Your task to perform on an android device: Go to display settings Image 0: 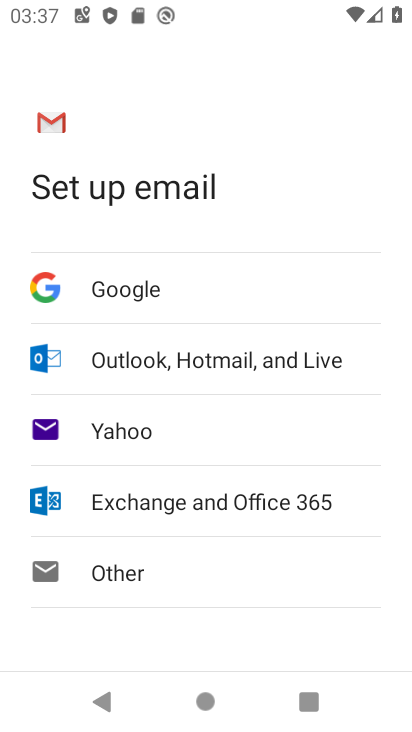
Step 0: press home button
Your task to perform on an android device: Go to display settings Image 1: 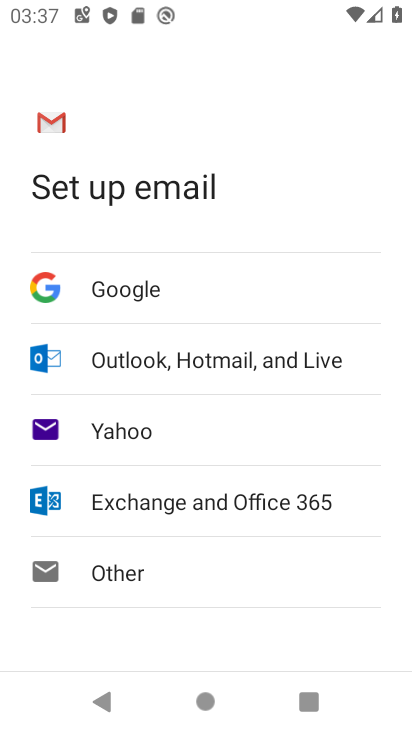
Step 1: press home button
Your task to perform on an android device: Go to display settings Image 2: 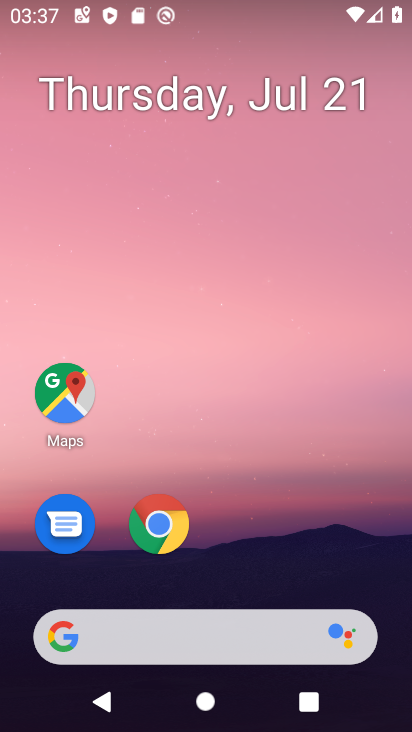
Step 2: drag from (261, 563) to (271, 0)
Your task to perform on an android device: Go to display settings Image 3: 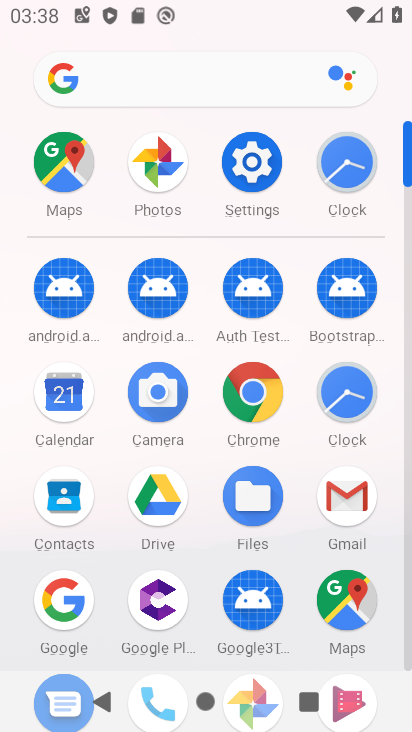
Step 3: click (264, 173)
Your task to perform on an android device: Go to display settings Image 4: 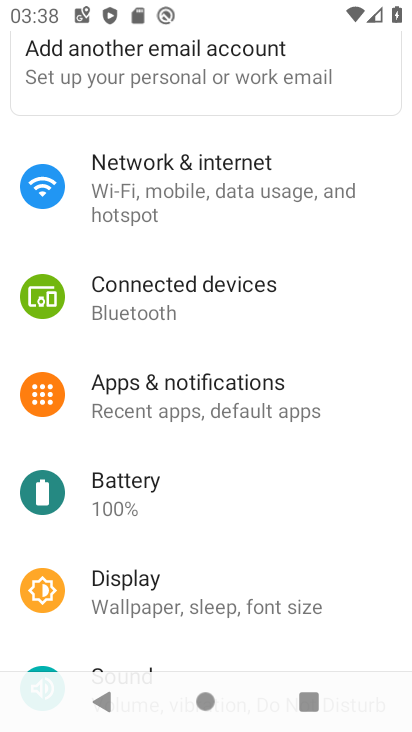
Step 4: click (194, 583)
Your task to perform on an android device: Go to display settings Image 5: 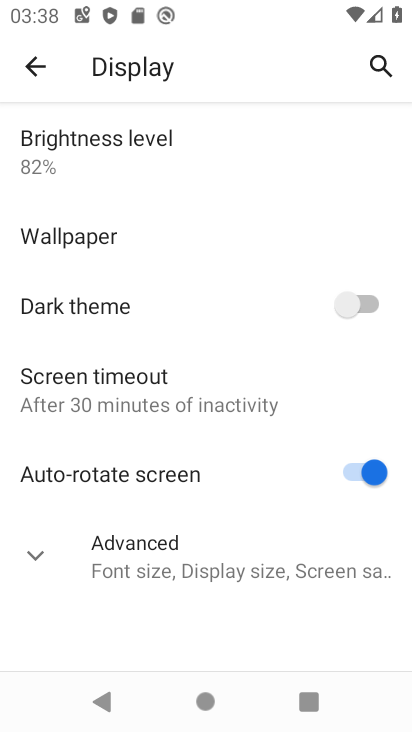
Step 5: click (41, 551)
Your task to perform on an android device: Go to display settings Image 6: 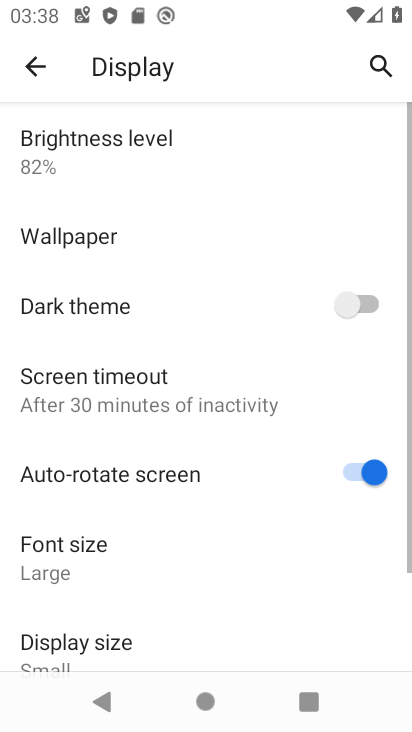
Step 6: task complete